Your task to perform on an android device: Open calendar and show me the second week of next month Image 0: 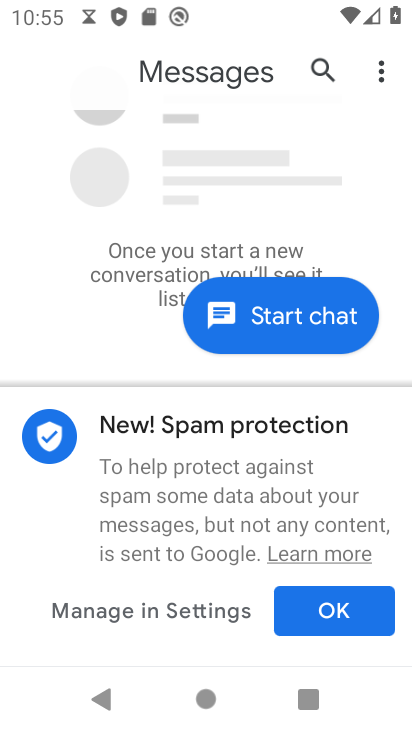
Step 0: press home button
Your task to perform on an android device: Open calendar and show me the second week of next month Image 1: 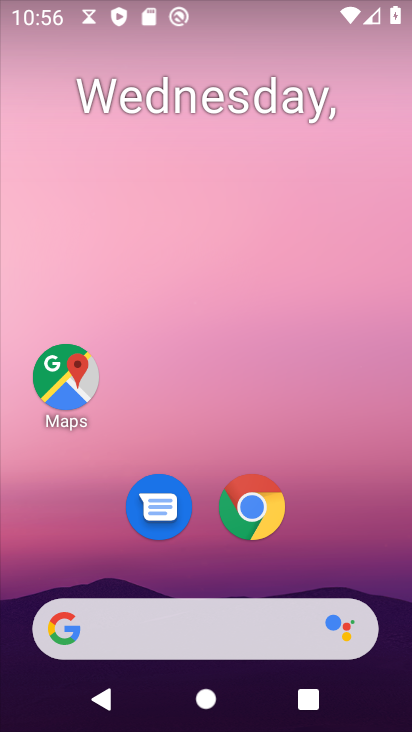
Step 1: drag from (282, 597) to (318, 230)
Your task to perform on an android device: Open calendar and show me the second week of next month Image 2: 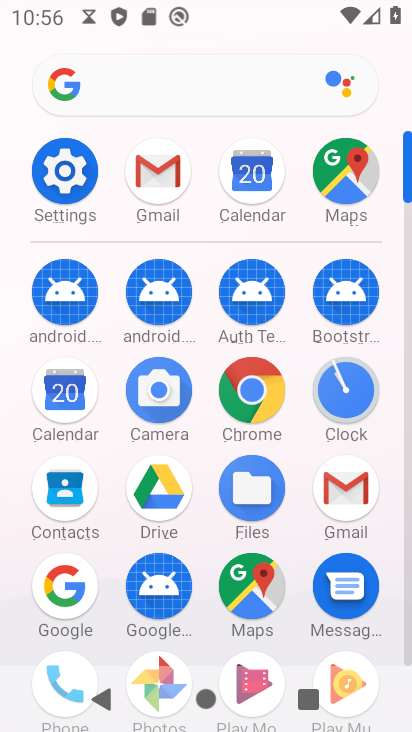
Step 2: click (74, 379)
Your task to perform on an android device: Open calendar and show me the second week of next month Image 3: 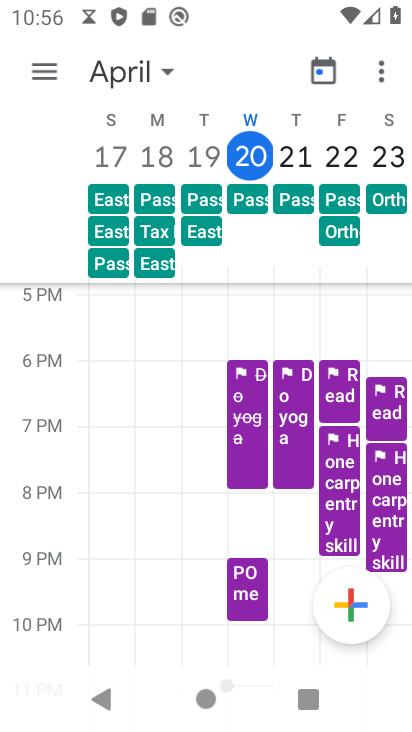
Step 3: click (46, 57)
Your task to perform on an android device: Open calendar and show me the second week of next month Image 4: 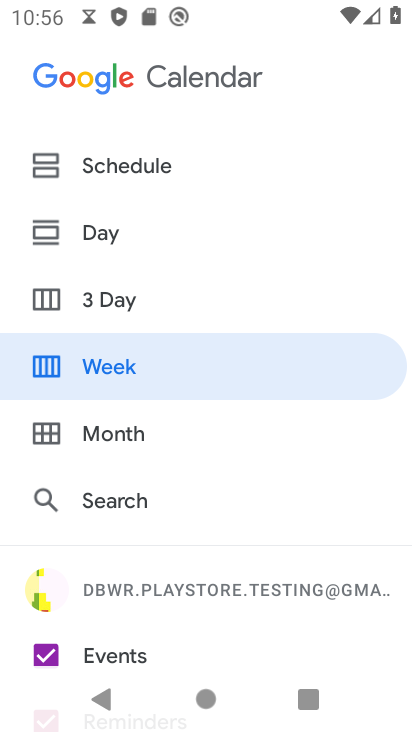
Step 4: click (119, 431)
Your task to perform on an android device: Open calendar and show me the second week of next month Image 5: 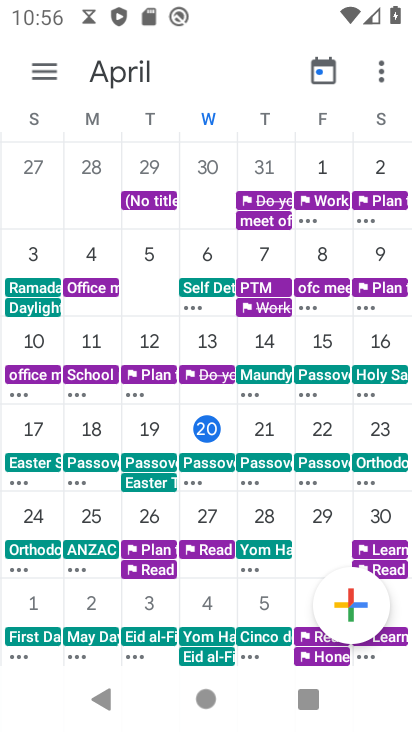
Step 5: drag from (367, 442) to (1, 580)
Your task to perform on an android device: Open calendar and show me the second week of next month Image 6: 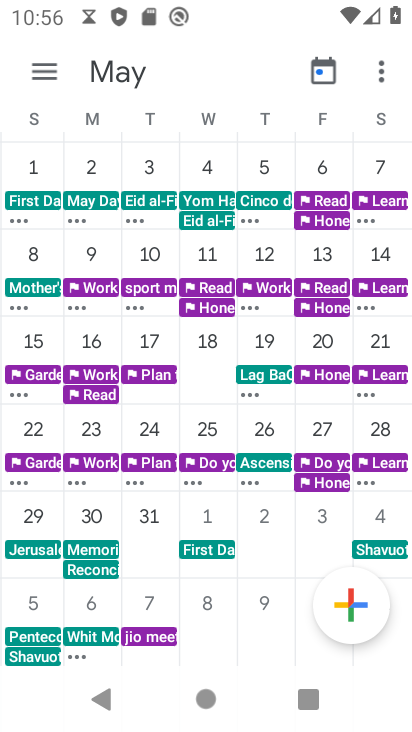
Step 6: click (90, 270)
Your task to perform on an android device: Open calendar and show me the second week of next month Image 7: 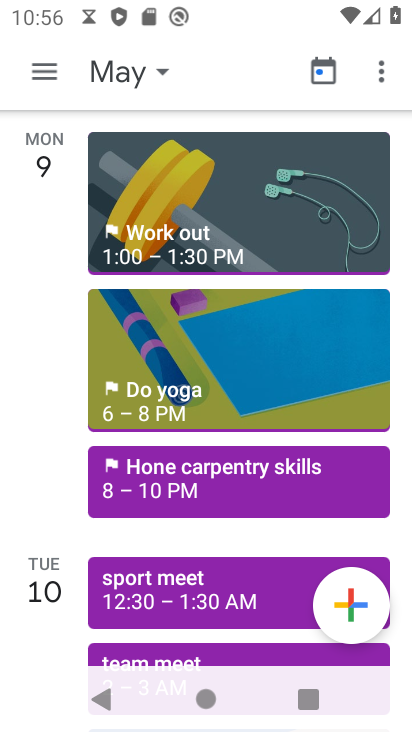
Step 7: task complete